Your task to perform on an android device: make emails show in primary in the gmail app Image 0: 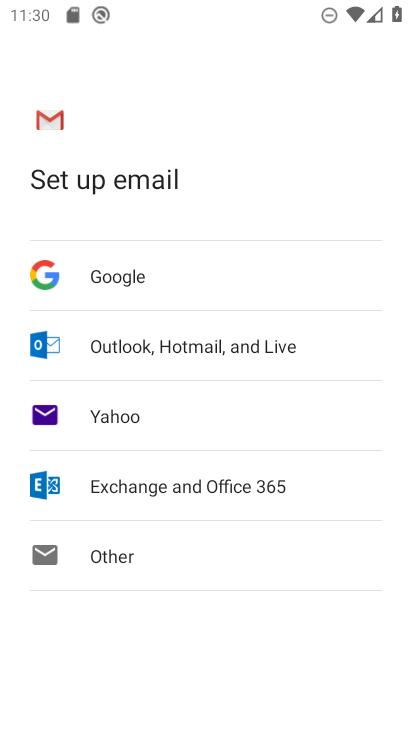
Step 0: press home button
Your task to perform on an android device: make emails show in primary in the gmail app Image 1: 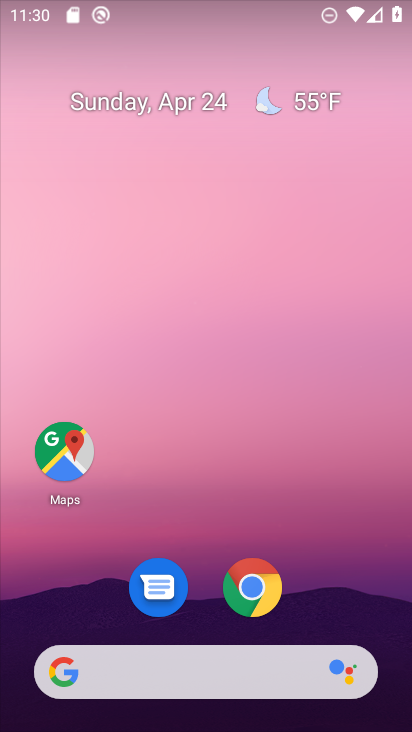
Step 1: drag from (332, 602) to (305, 130)
Your task to perform on an android device: make emails show in primary in the gmail app Image 2: 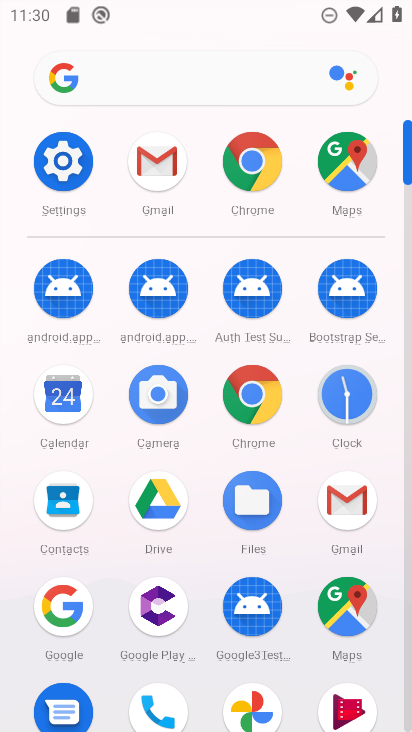
Step 2: click (355, 493)
Your task to perform on an android device: make emails show in primary in the gmail app Image 3: 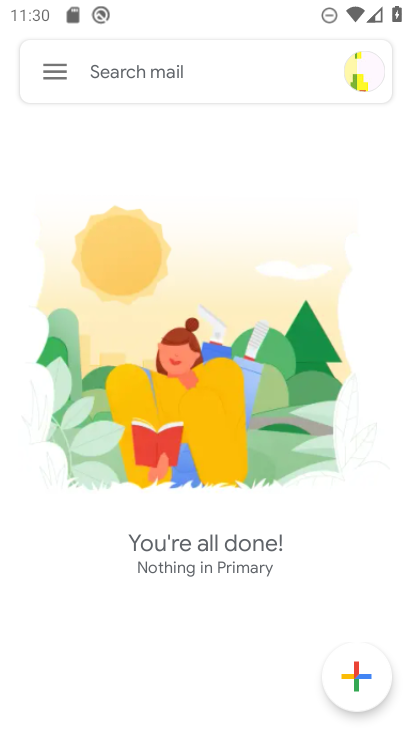
Step 3: click (51, 58)
Your task to perform on an android device: make emails show in primary in the gmail app Image 4: 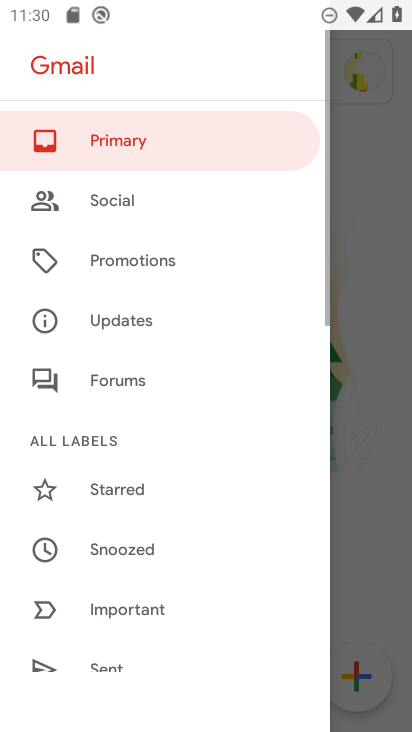
Step 4: drag from (142, 592) to (229, 113)
Your task to perform on an android device: make emails show in primary in the gmail app Image 5: 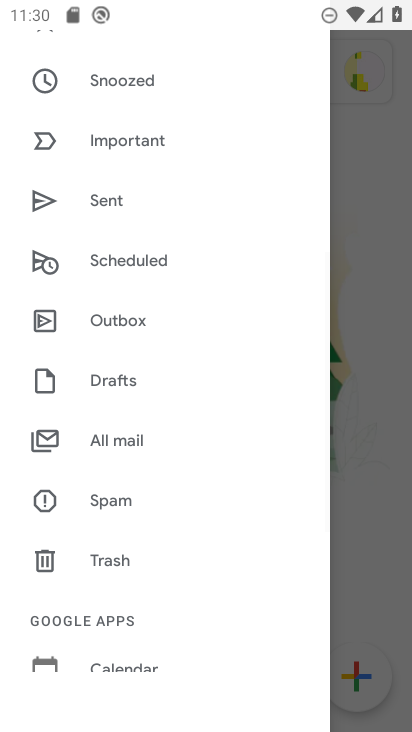
Step 5: drag from (128, 670) to (287, 362)
Your task to perform on an android device: make emails show in primary in the gmail app Image 6: 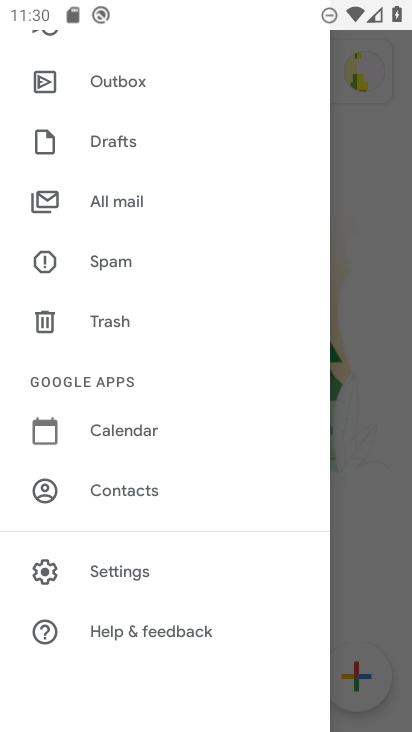
Step 6: click (131, 578)
Your task to perform on an android device: make emails show in primary in the gmail app Image 7: 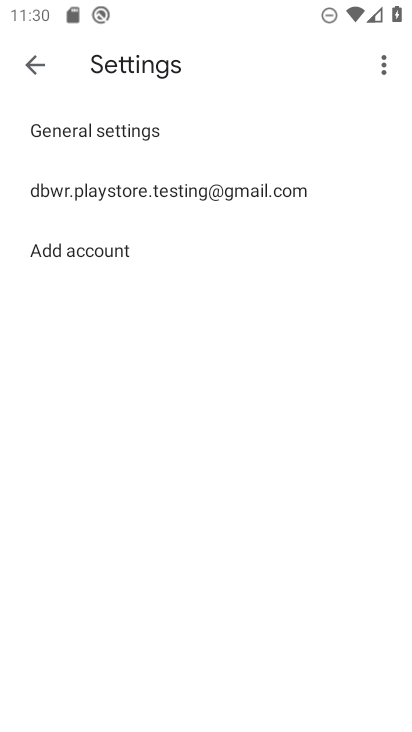
Step 7: click (166, 186)
Your task to perform on an android device: make emails show in primary in the gmail app Image 8: 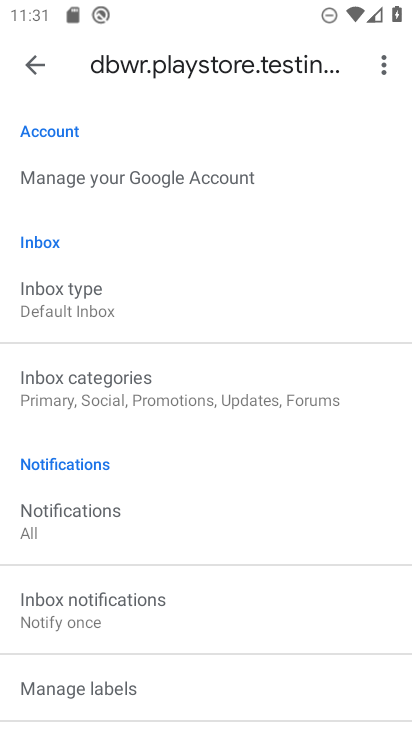
Step 8: click (85, 285)
Your task to perform on an android device: make emails show in primary in the gmail app Image 9: 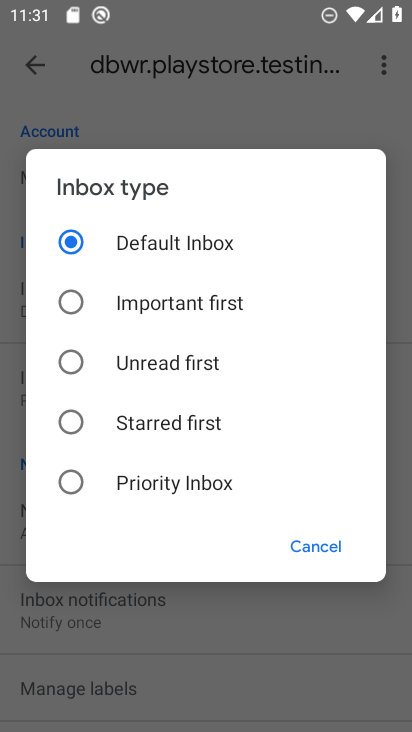
Step 9: click (324, 572)
Your task to perform on an android device: make emails show in primary in the gmail app Image 10: 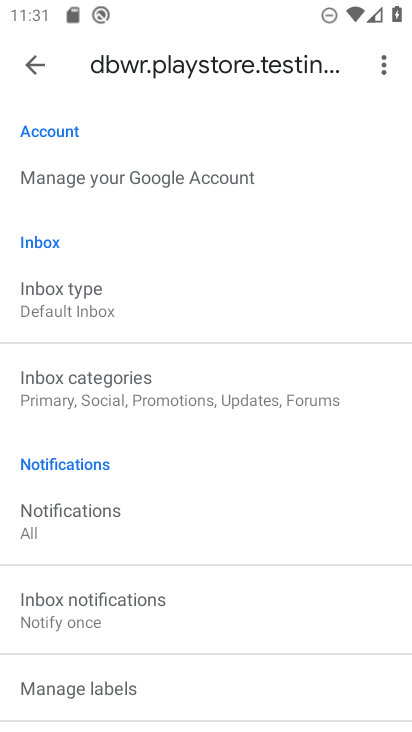
Step 10: click (152, 398)
Your task to perform on an android device: make emails show in primary in the gmail app Image 11: 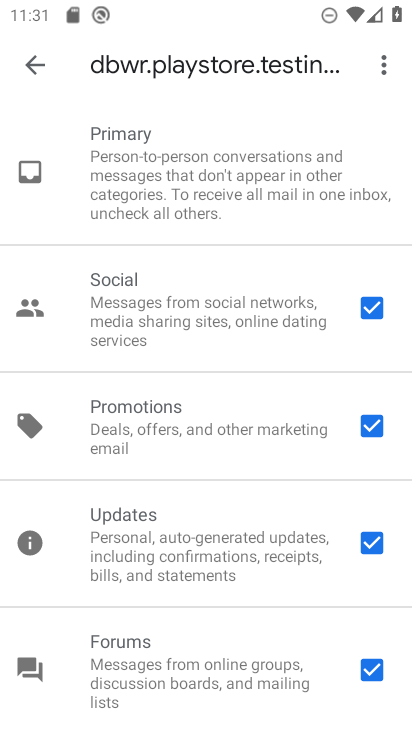
Step 11: task complete